Your task to perform on an android device: Open Android settings Image 0: 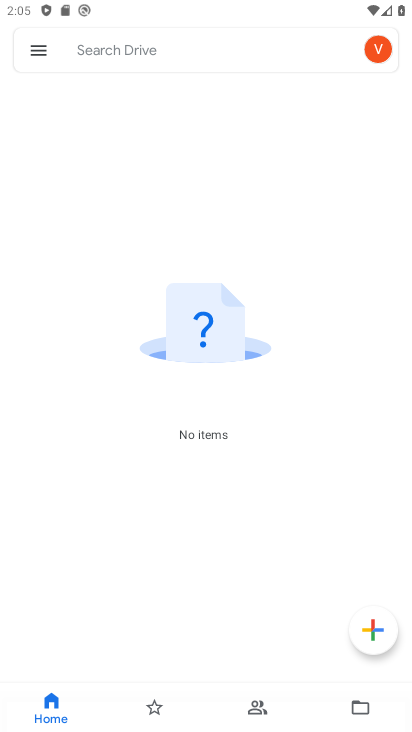
Step 0: press back button
Your task to perform on an android device: Open Android settings Image 1: 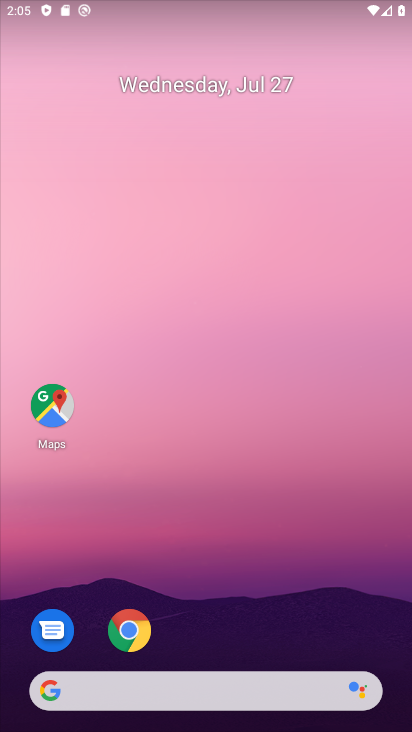
Step 1: drag from (264, 637) to (261, 218)
Your task to perform on an android device: Open Android settings Image 2: 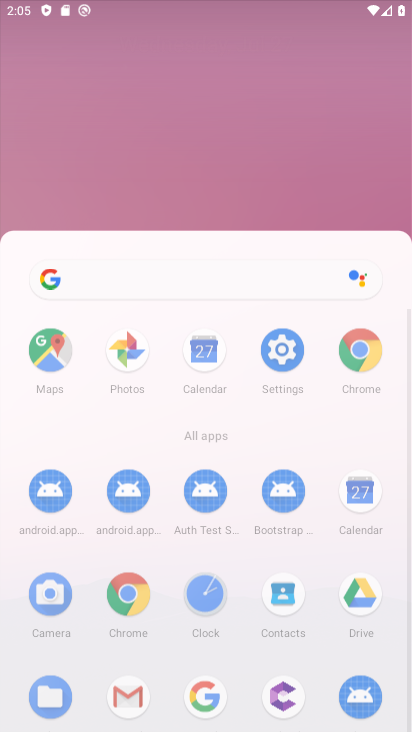
Step 2: drag from (280, 624) to (207, 226)
Your task to perform on an android device: Open Android settings Image 3: 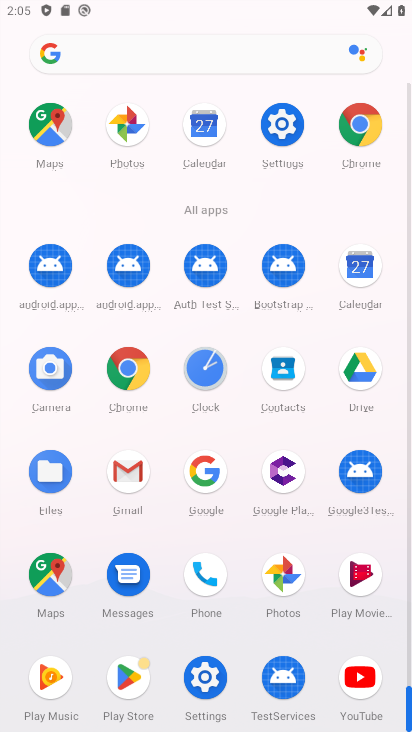
Step 3: drag from (222, 617) to (147, 174)
Your task to perform on an android device: Open Android settings Image 4: 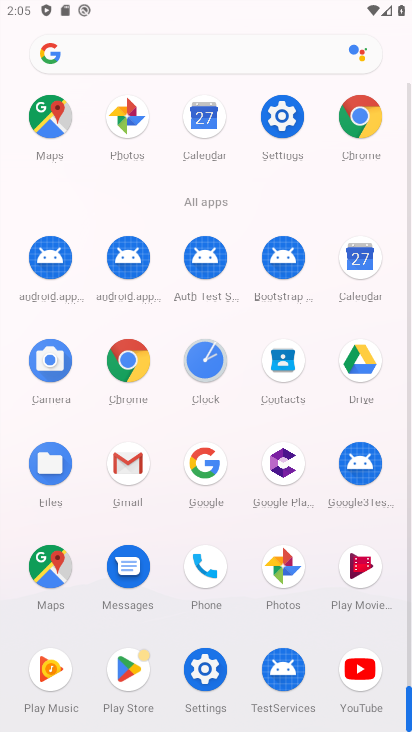
Step 4: click (209, 664)
Your task to perform on an android device: Open Android settings Image 5: 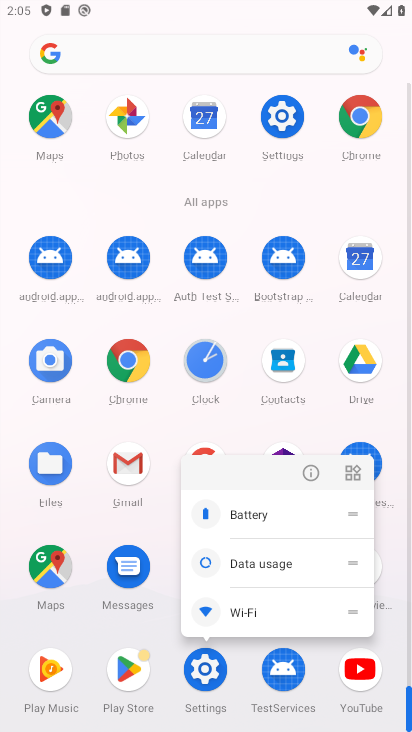
Step 5: click (205, 651)
Your task to perform on an android device: Open Android settings Image 6: 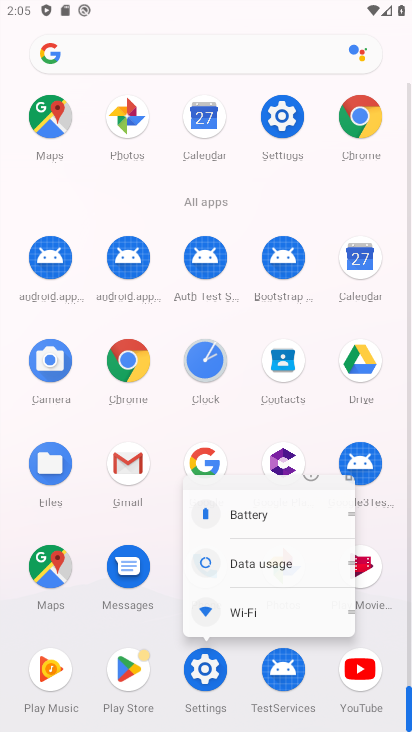
Step 6: click (205, 651)
Your task to perform on an android device: Open Android settings Image 7: 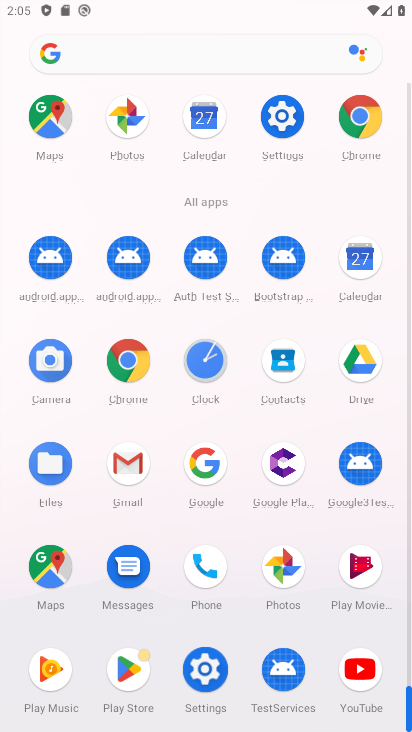
Step 7: click (205, 655)
Your task to perform on an android device: Open Android settings Image 8: 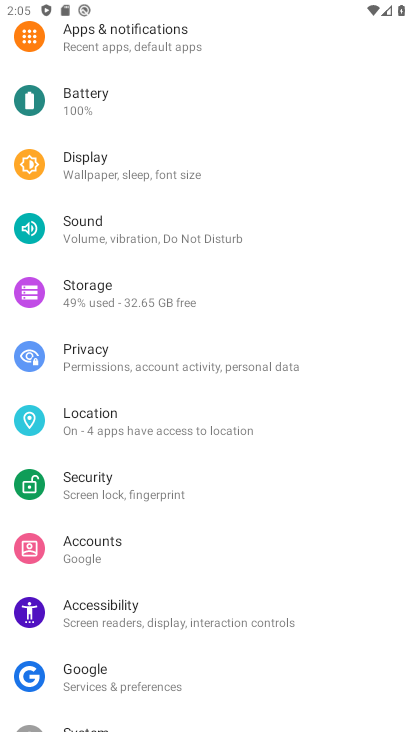
Step 8: drag from (103, 611) to (49, 194)
Your task to perform on an android device: Open Android settings Image 9: 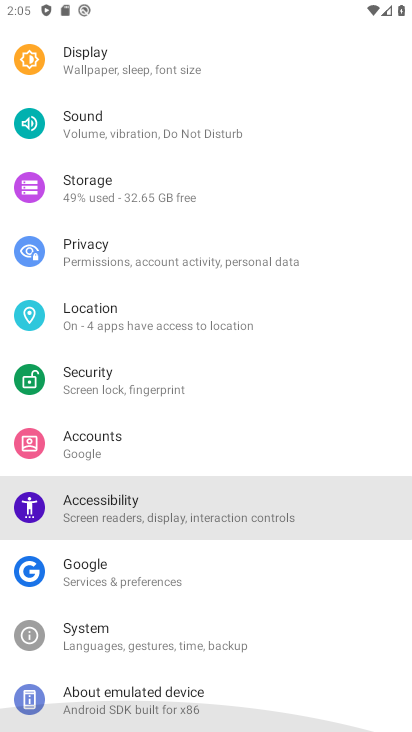
Step 9: drag from (143, 562) to (113, 212)
Your task to perform on an android device: Open Android settings Image 10: 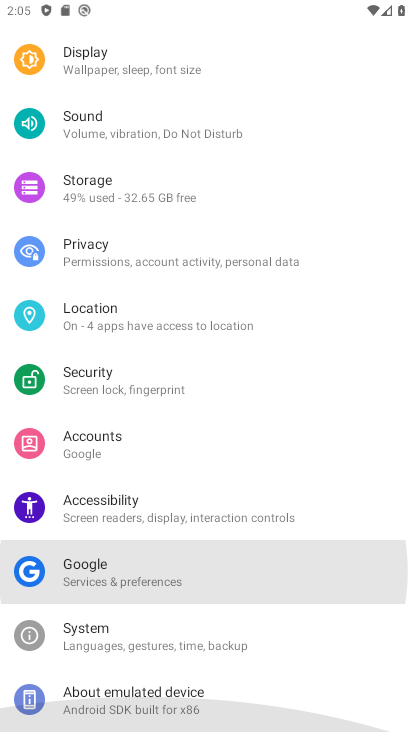
Step 10: drag from (177, 453) to (152, 199)
Your task to perform on an android device: Open Android settings Image 11: 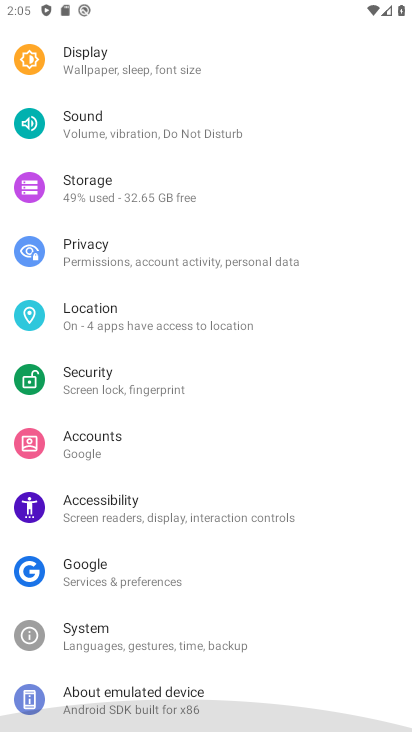
Step 11: drag from (144, 419) to (131, 316)
Your task to perform on an android device: Open Android settings Image 12: 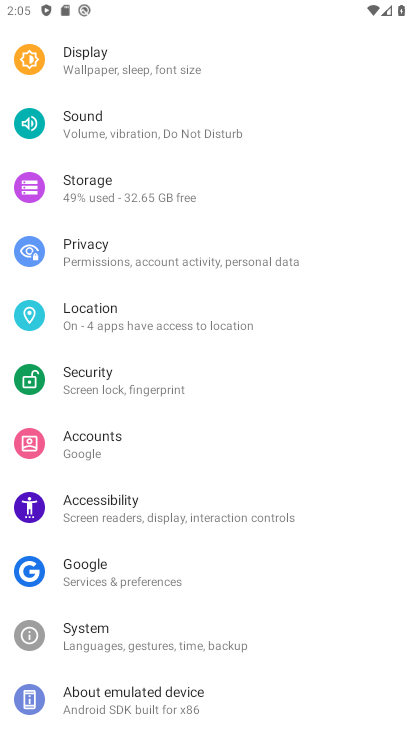
Step 12: click (110, 698)
Your task to perform on an android device: Open Android settings Image 13: 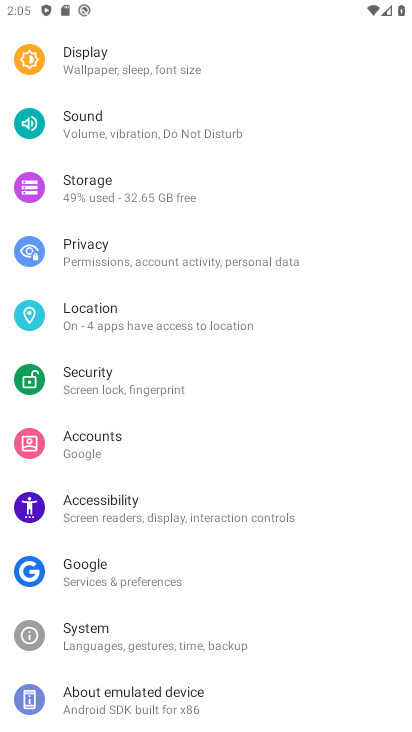
Step 13: click (110, 698)
Your task to perform on an android device: Open Android settings Image 14: 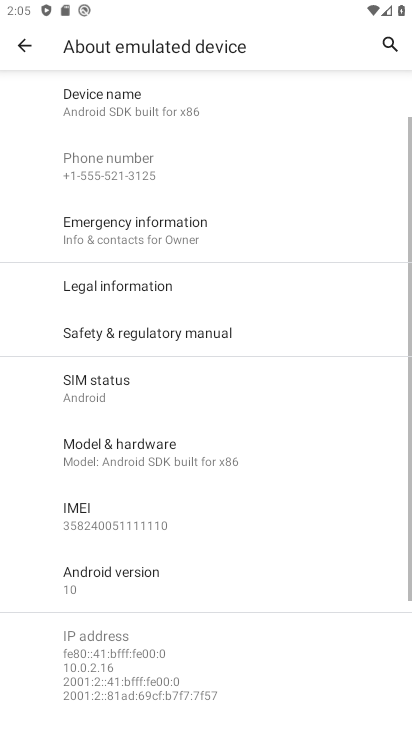
Step 14: task complete